Your task to perform on an android device: Go to Google Image 0: 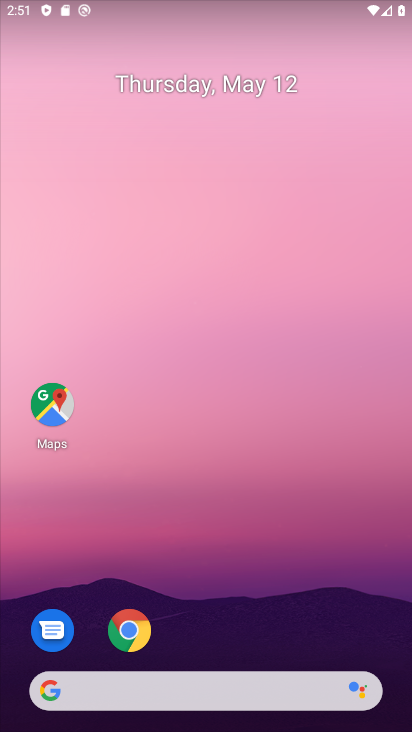
Step 0: drag from (227, 638) to (313, 93)
Your task to perform on an android device: Go to Google Image 1: 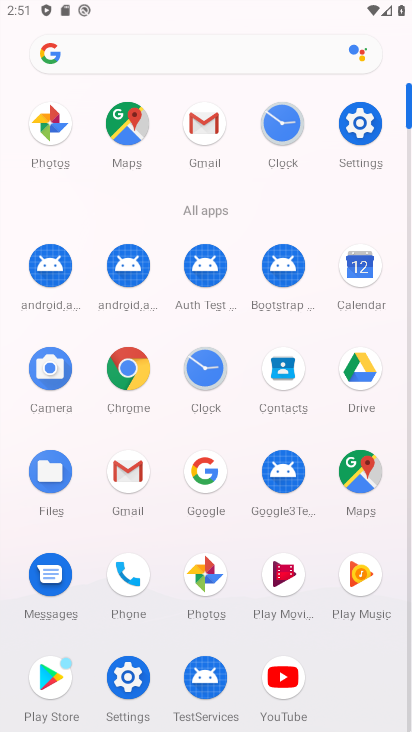
Step 1: click (201, 479)
Your task to perform on an android device: Go to Google Image 2: 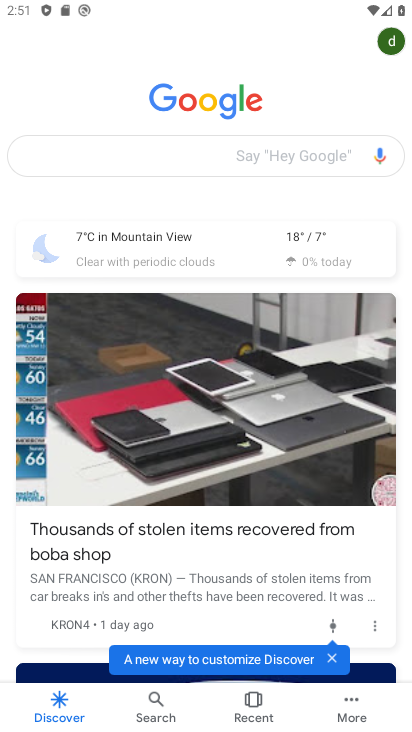
Step 2: task complete